Your task to perform on an android device: Check the weather Image 0: 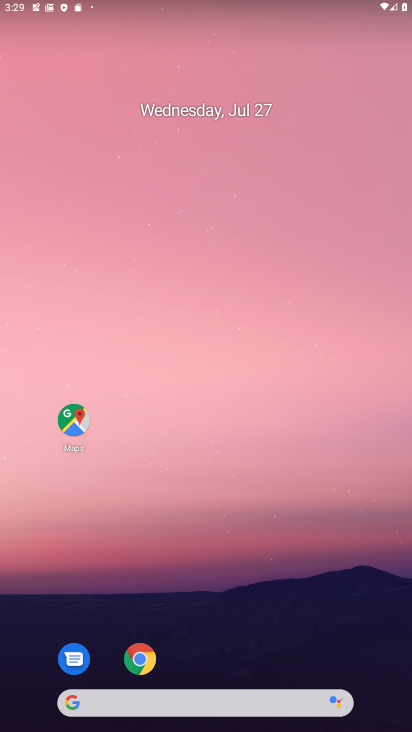
Step 0: drag from (178, 642) to (238, 258)
Your task to perform on an android device: Check the weather Image 1: 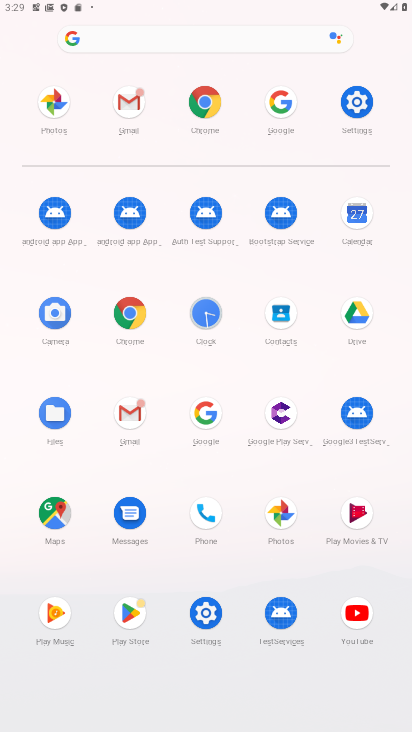
Step 1: click (201, 408)
Your task to perform on an android device: Check the weather Image 2: 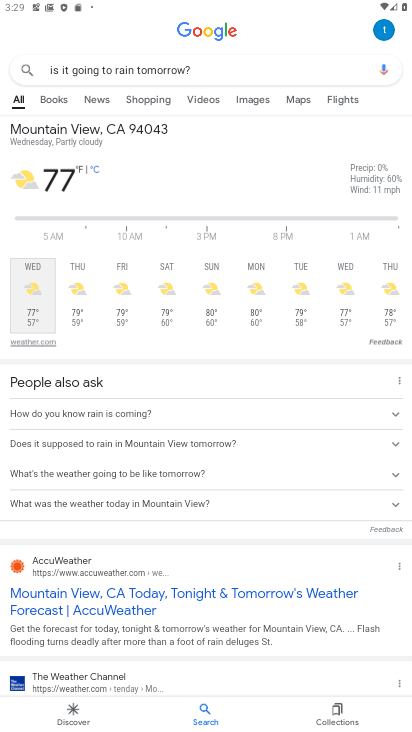
Step 2: click (97, 72)
Your task to perform on an android device: Check the weather Image 3: 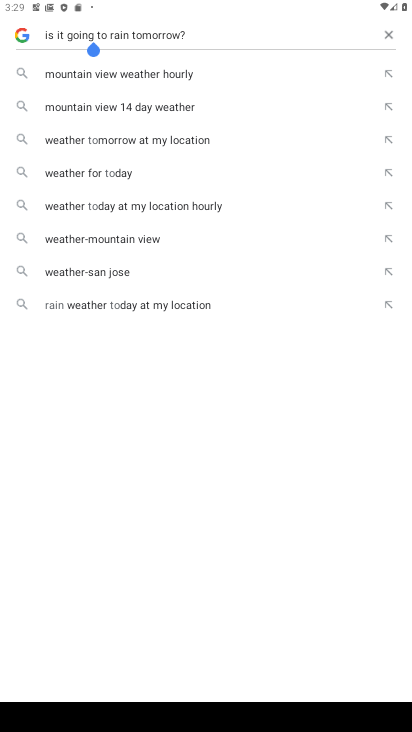
Step 3: click (389, 36)
Your task to perform on an android device: Check the weather Image 4: 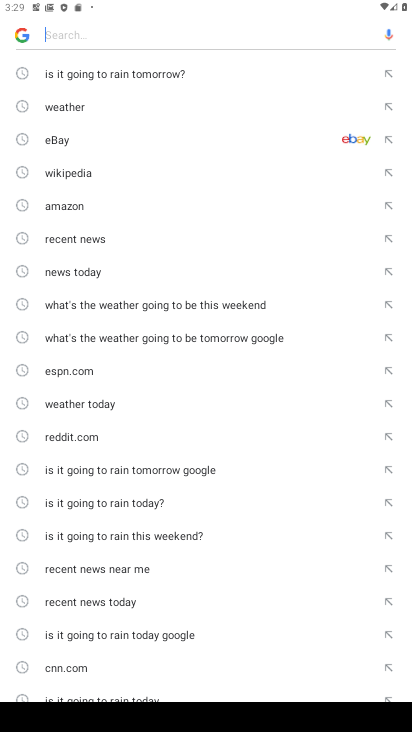
Step 4: click (53, 109)
Your task to perform on an android device: Check the weather Image 5: 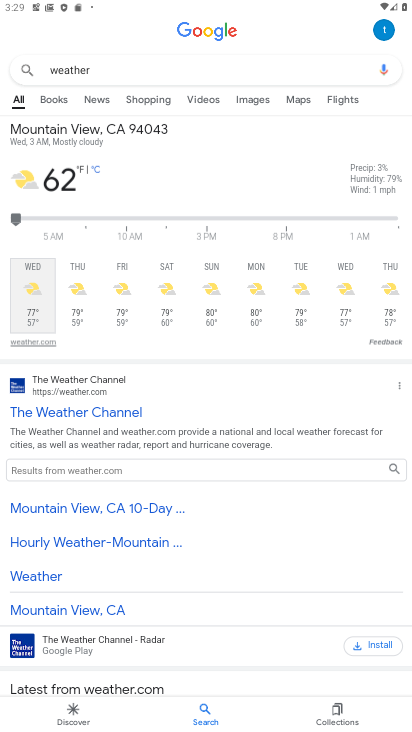
Step 5: task complete